Your task to perform on an android device: turn notification dots off Image 0: 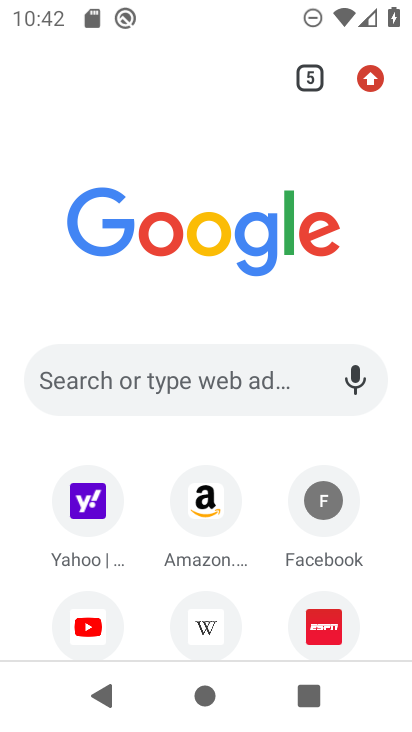
Step 0: press home button
Your task to perform on an android device: turn notification dots off Image 1: 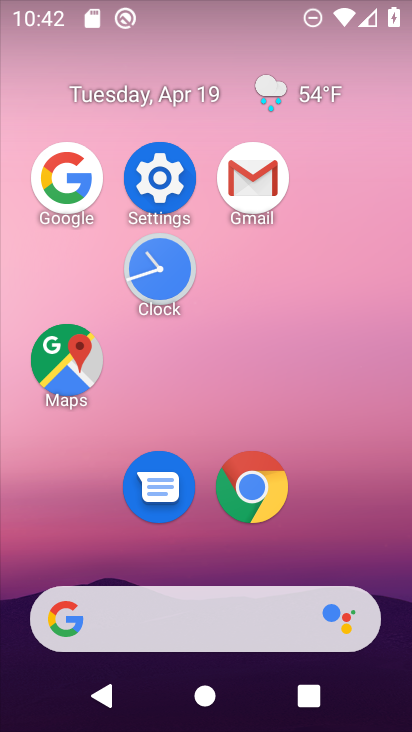
Step 1: click (146, 187)
Your task to perform on an android device: turn notification dots off Image 2: 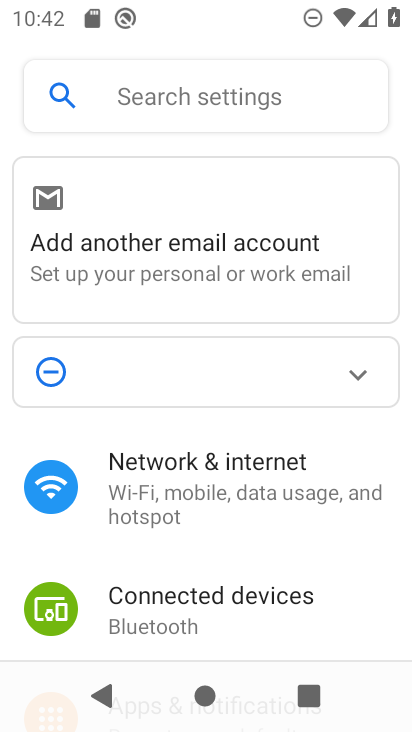
Step 2: drag from (223, 540) to (260, 128)
Your task to perform on an android device: turn notification dots off Image 3: 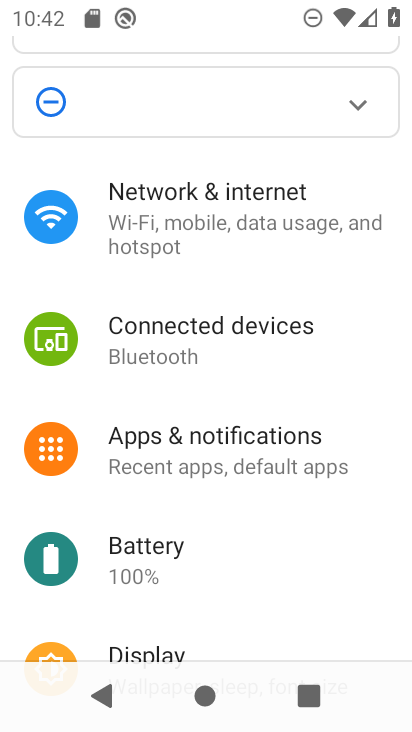
Step 3: click (195, 440)
Your task to perform on an android device: turn notification dots off Image 4: 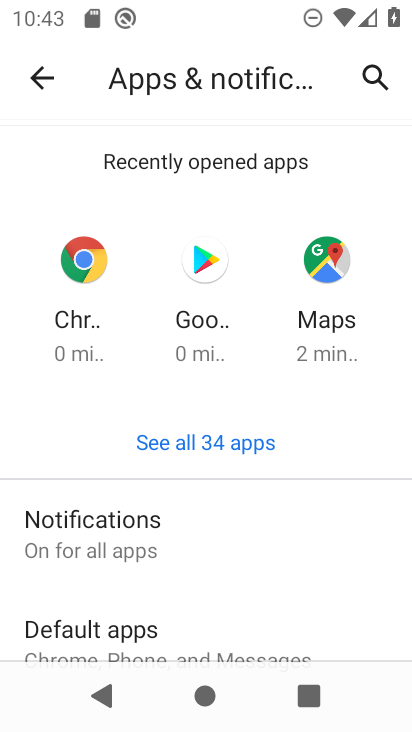
Step 4: click (135, 539)
Your task to perform on an android device: turn notification dots off Image 5: 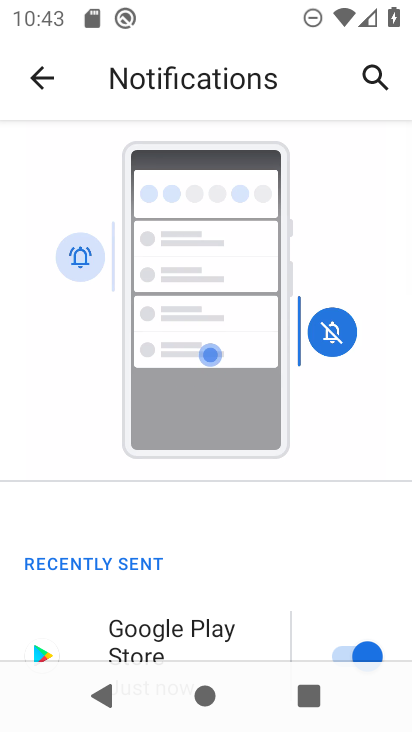
Step 5: drag from (259, 537) to (303, 142)
Your task to perform on an android device: turn notification dots off Image 6: 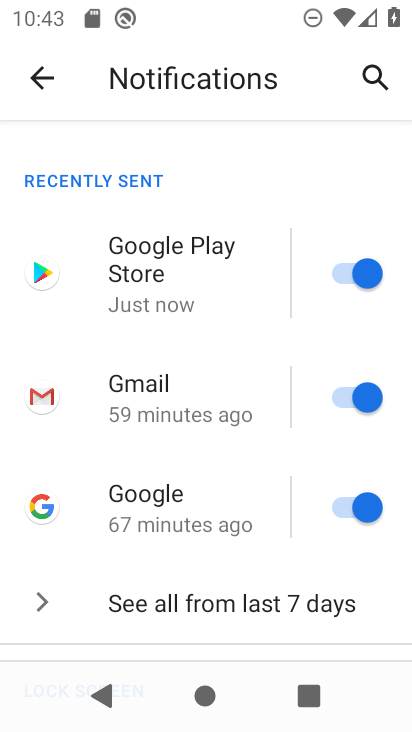
Step 6: drag from (198, 379) to (241, 74)
Your task to perform on an android device: turn notification dots off Image 7: 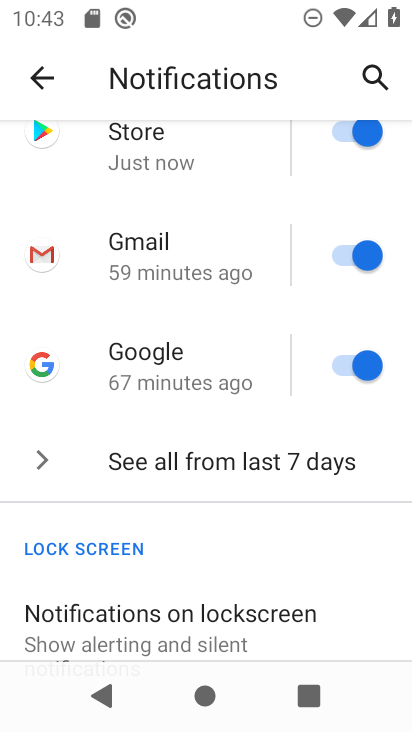
Step 7: drag from (179, 553) to (282, 136)
Your task to perform on an android device: turn notification dots off Image 8: 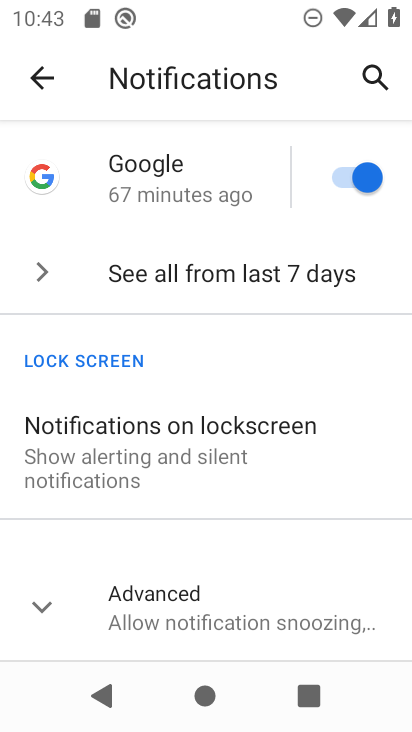
Step 8: click (180, 594)
Your task to perform on an android device: turn notification dots off Image 9: 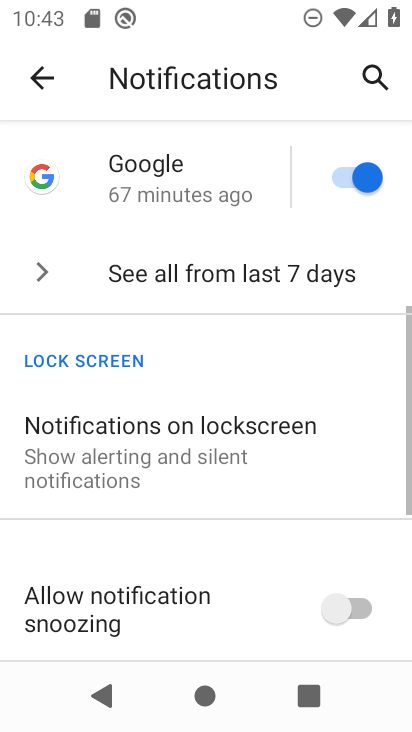
Step 9: drag from (180, 594) to (287, 177)
Your task to perform on an android device: turn notification dots off Image 10: 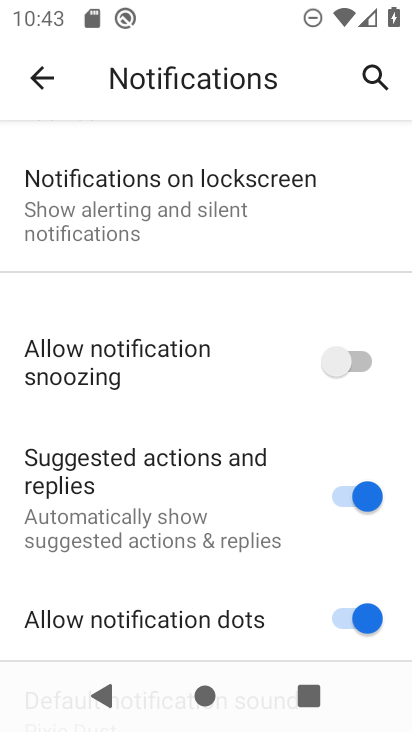
Step 10: drag from (210, 511) to (267, 224)
Your task to perform on an android device: turn notification dots off Image 11: 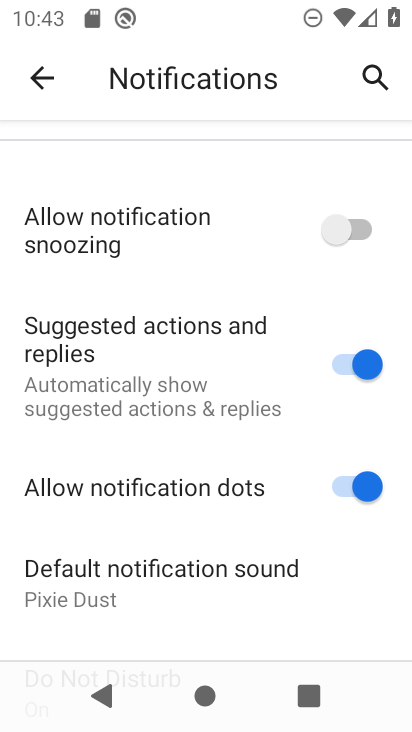
Step 11: click (350, 485)
Your task to perform on an android device: turn notification dots off Image 12: 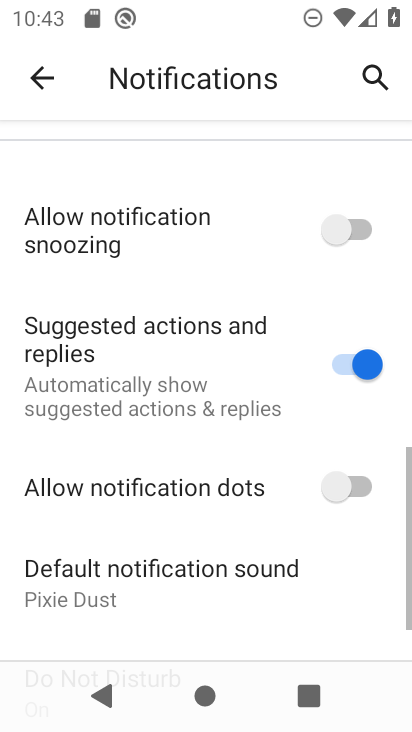
Step 12: task complete